Your task to perform on an android device: open a new tab in the chrome app Image 0: 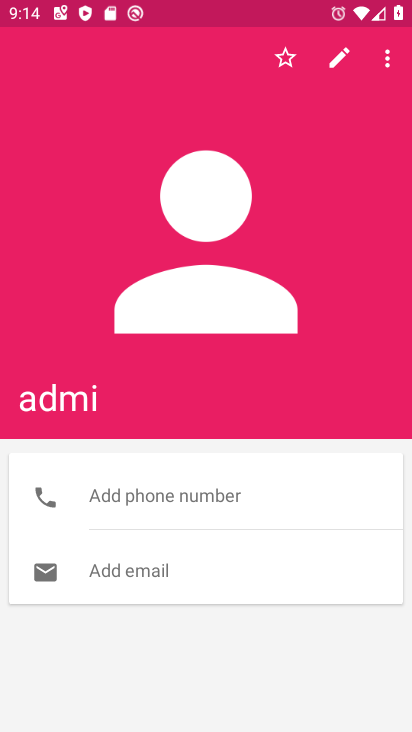
Step 0: press home button
Your task to perform on an android device: open a new tab in the chrome app Image 1: 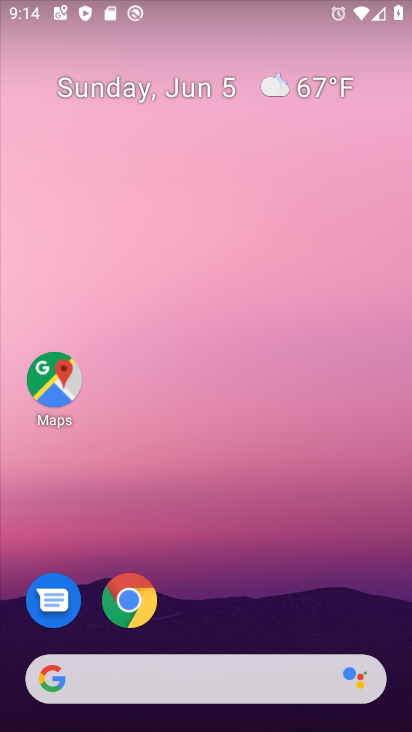
Step 1: drag from (400, 651) to (275, 133)
Your task to perform on an android device: open a new tab in the chrome app Image 2: 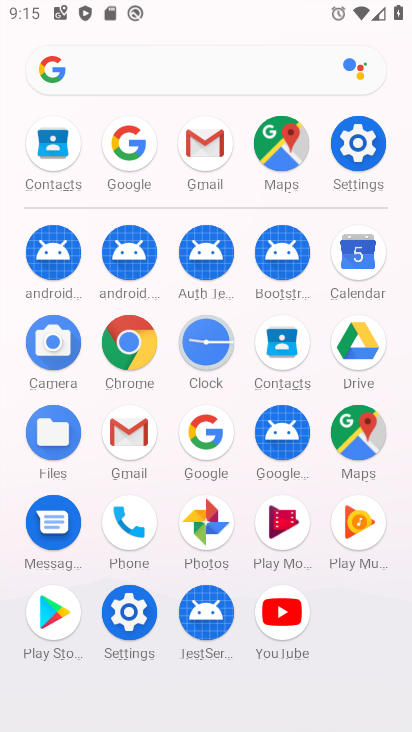
Step 2: click (132, 357)
Your task to perform on an android device: open a new tab in the chrome app Image 3: 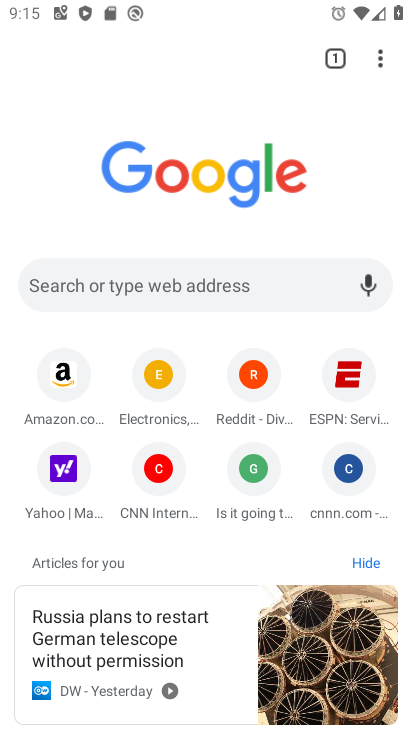
Step 3: click (380, 63)
Your task to perform on an android device: open a new tab in the chrome app Image 4: 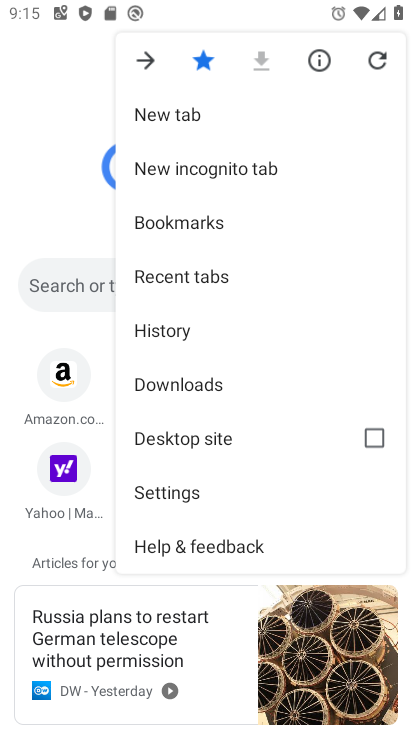
Step 4: click (231, 124)
Your task to perform on an android device: open a new tab in the chrome app Image 5: 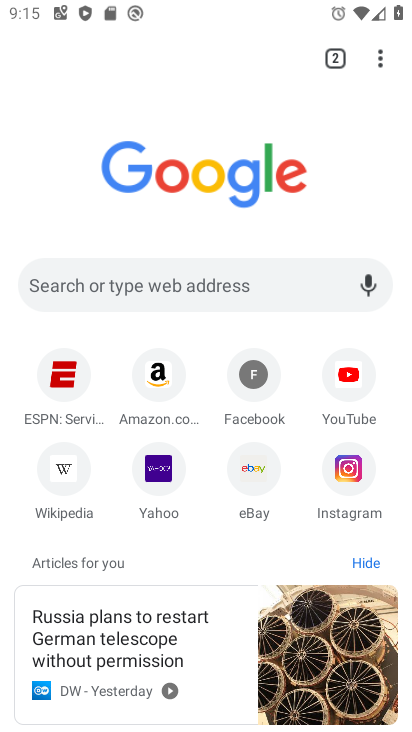
Step 5: task complete